Your task to perform on an android device: toggle wifi Image 0: 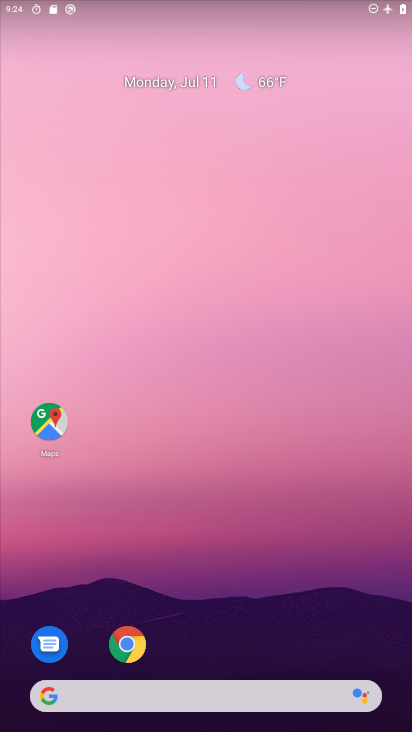
Step 0: drag from (304, 567) to (310, 44)
Your task to perform on an android device: toggle wifi Image 1: 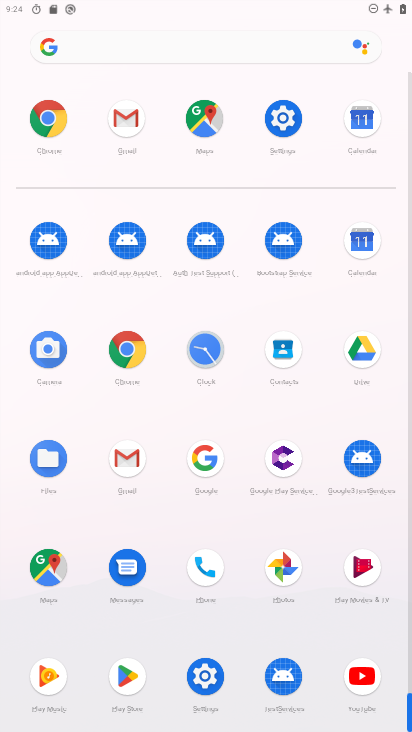
Step 1: click (284, 114)
Your task to perform on an android device: toggle wifi Image 2: 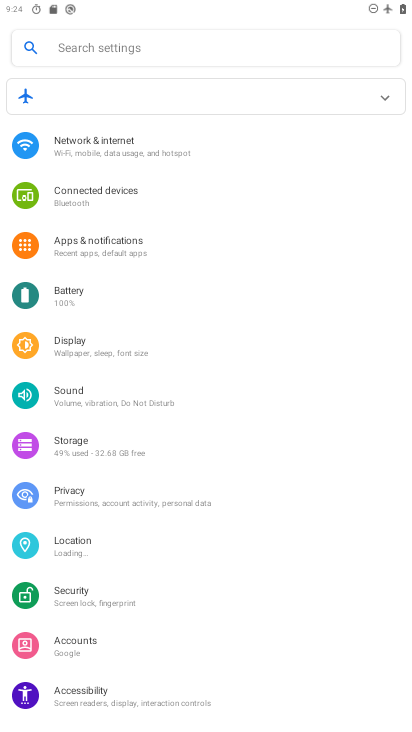
Step 2: click (172, 152)
Your task to perform on an android device: toggle wifi Image 3: 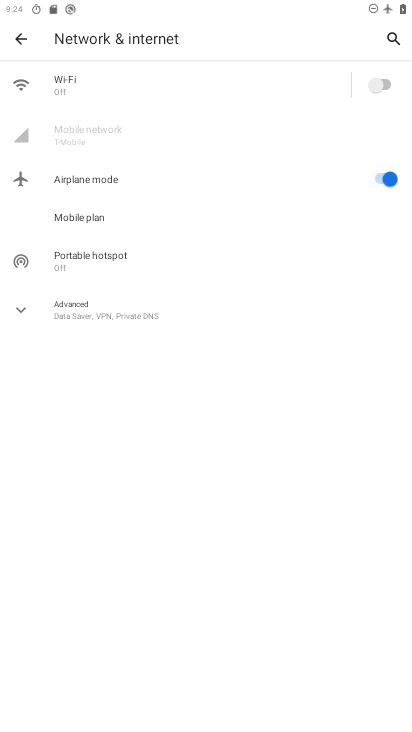
Step 3: click (372, 84)
Your task to perform on an android device: toggle wifi Image 4: 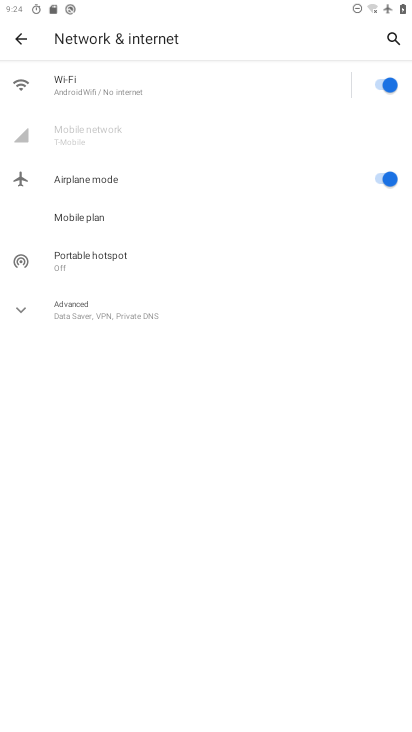
Step 4: task complete